Your task to perform on an android device: Open network settings Image 0: 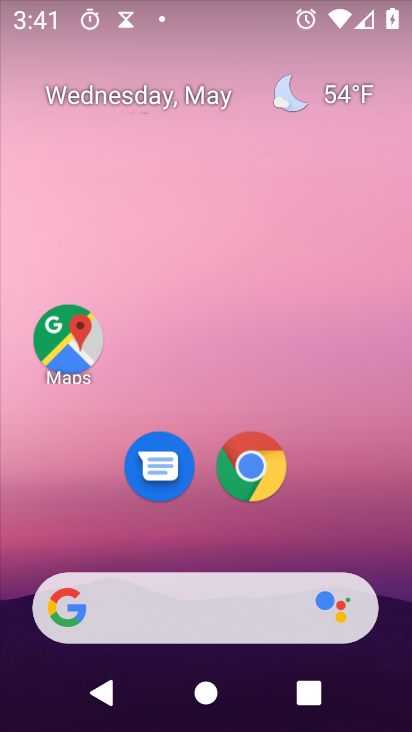
Step 0: drag from (187, 321) to (118, 1)
Your task to perform on an android device: Open network settings Image 1: 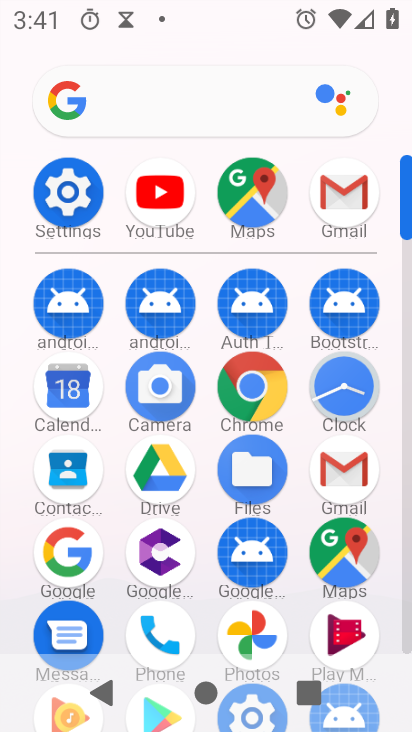
Step 1: click (50, 206)
Your task to perform on an android device: Open network settings Image 2: 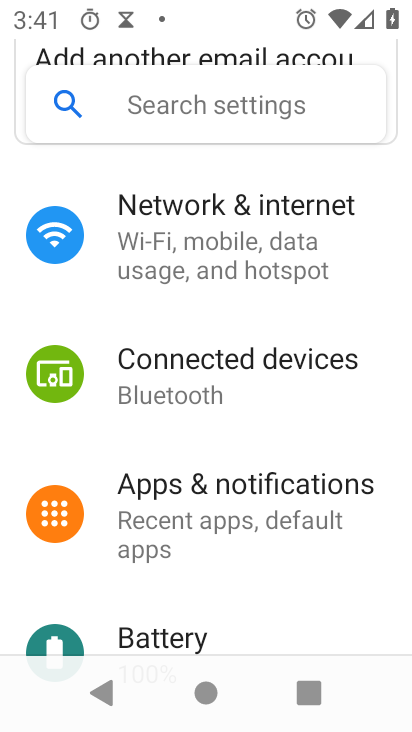
Step 2: click (251, 269)
Your task to perform on an android device: Open network settings Image 3: 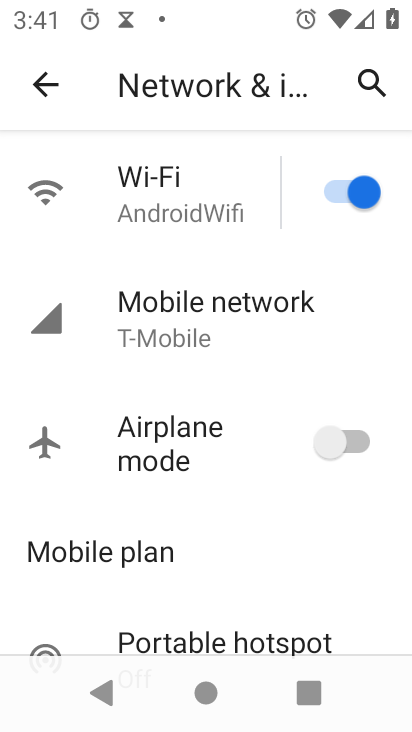
Step 3: task complete